Your task to perform on an android device: all mails in gmail Image 0: 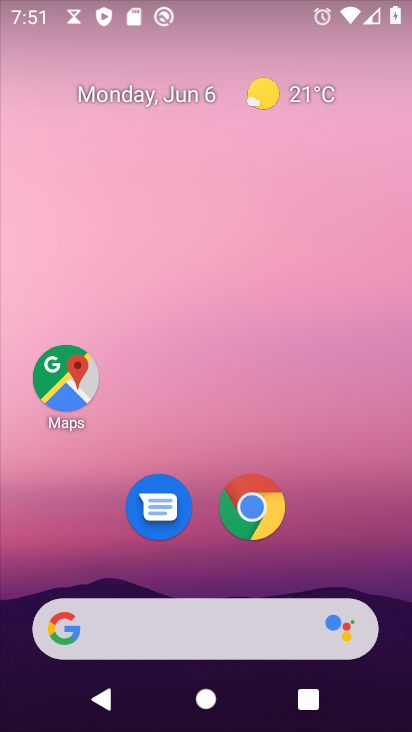
Step 0: drag from (314, 566) to (243, 50)
Your task to perform on an android device: all mails in gmail Image 1: 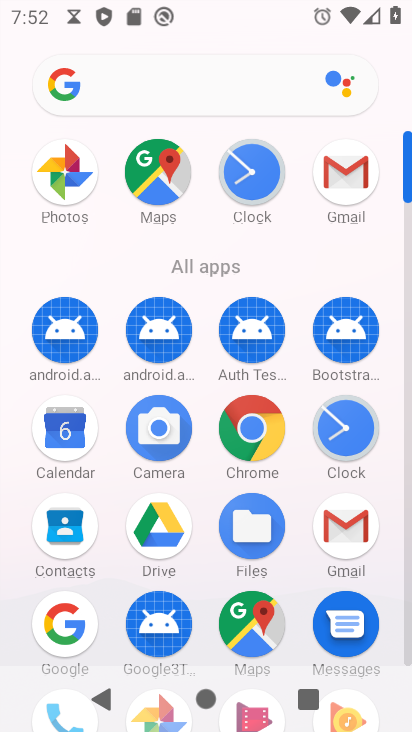
Step 1: click (350, 175)
Your task to perform on an android device: all mails in gmail Image 2: 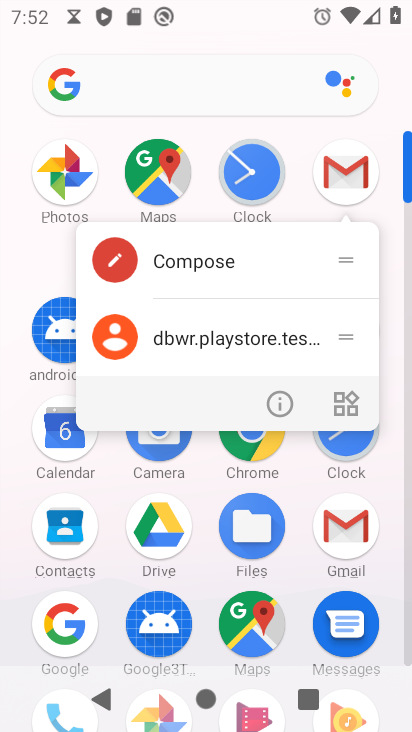
Step 2: click (348, 179)
Your task to perform on an android device: all mails in gmail Image 3: 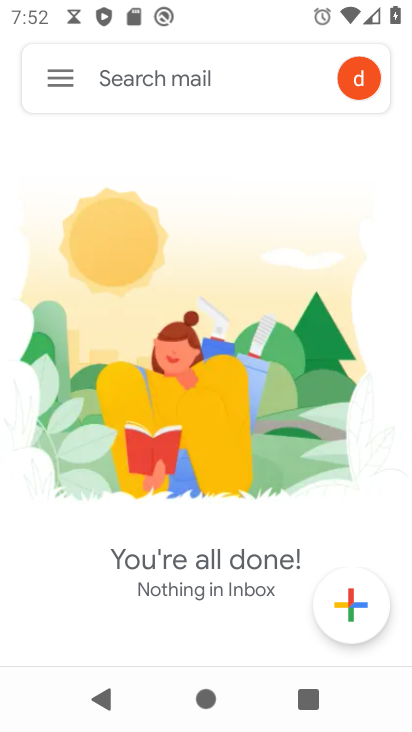
Step 3: click (57, 73)
Your task to perform on an android device: all mails in gmail Image 4: 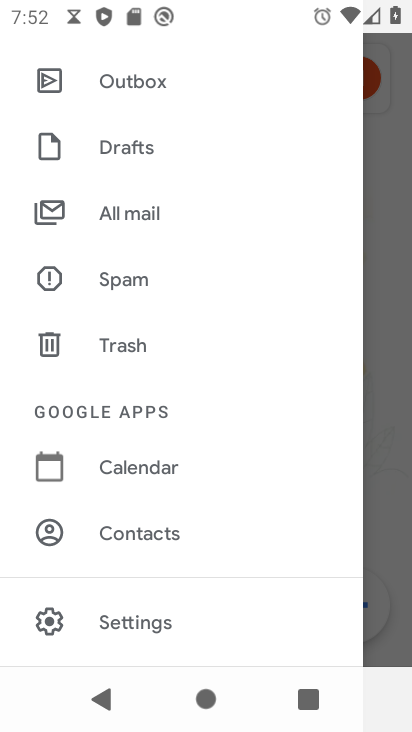
Step 4: click (149, 205)
Your task to perform on an android device: all mails in gmail Image 5: 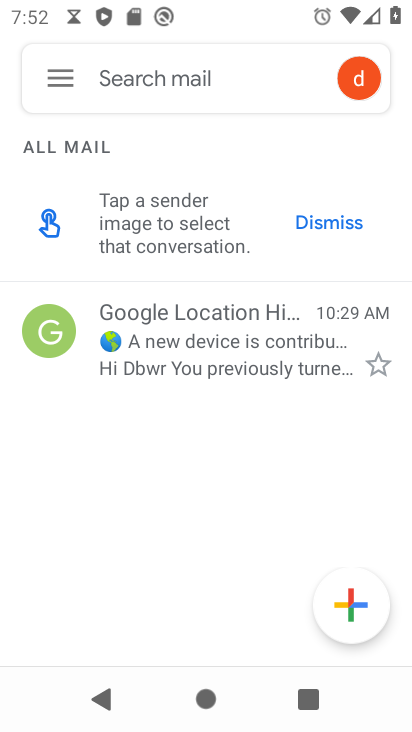
Step 5: task complete